Your task to perform on an android device: Open network settings Image 0: 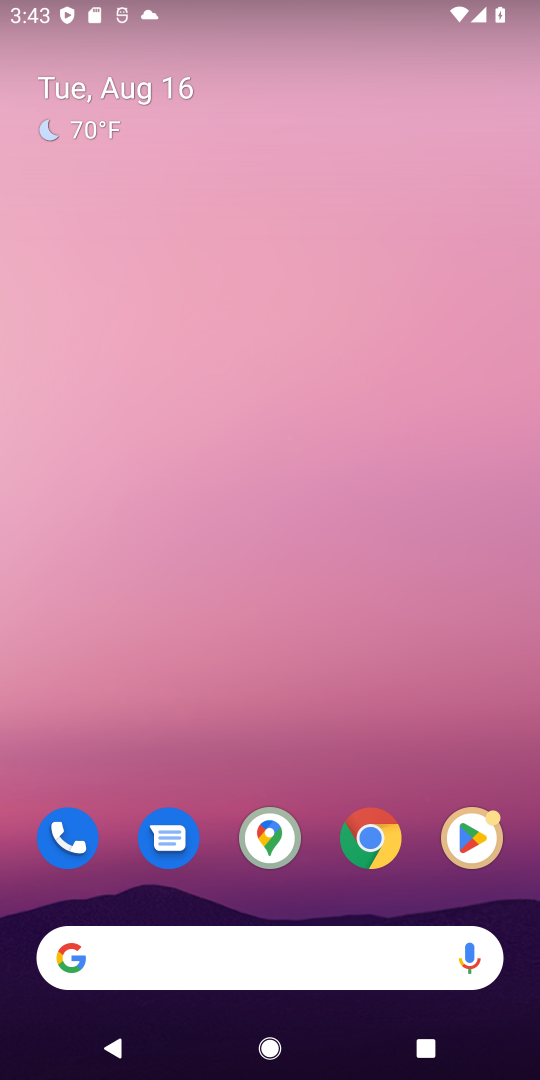
Step 0: drag from (237, 945) to (119, 31)
Your task to perform on an android device: Open network settings Image 1: 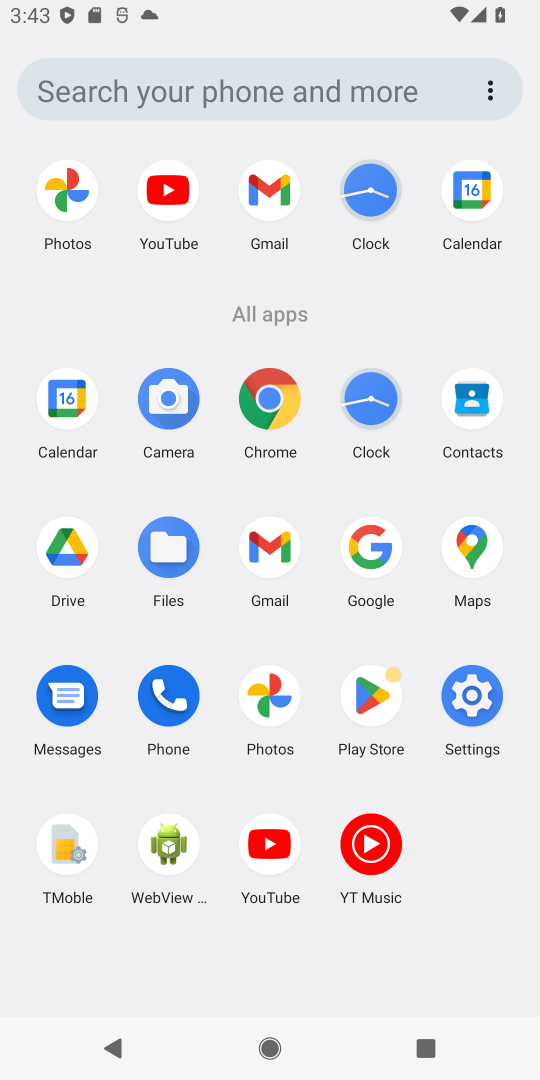
Step 1: click (478, 666)
Your task to perform on an android device: Open network settings Image 2: 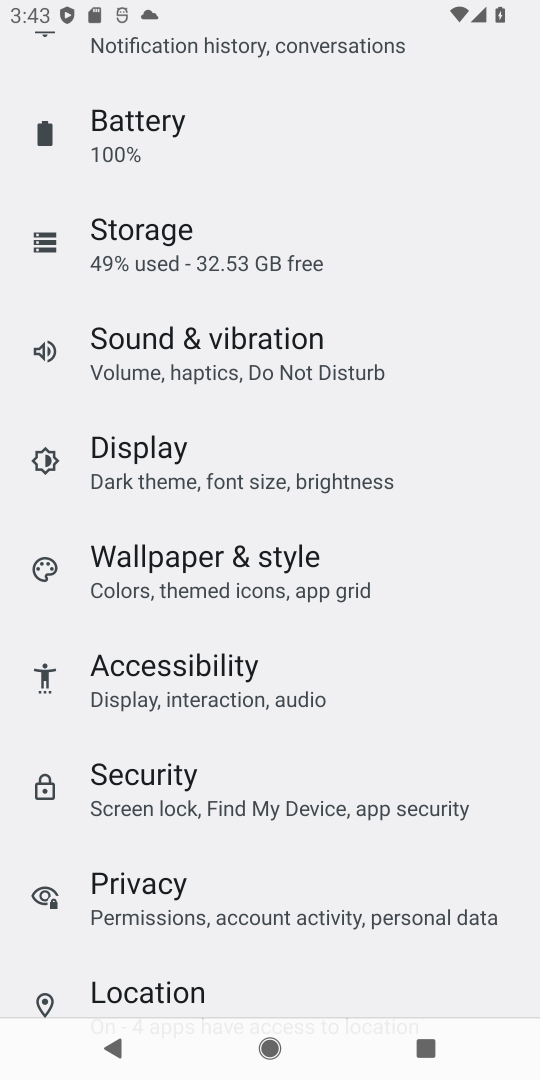
Step 2: drag from (314, 412) to (351, 1074)
Your task to perform on an android device: Open network settings Image 3: 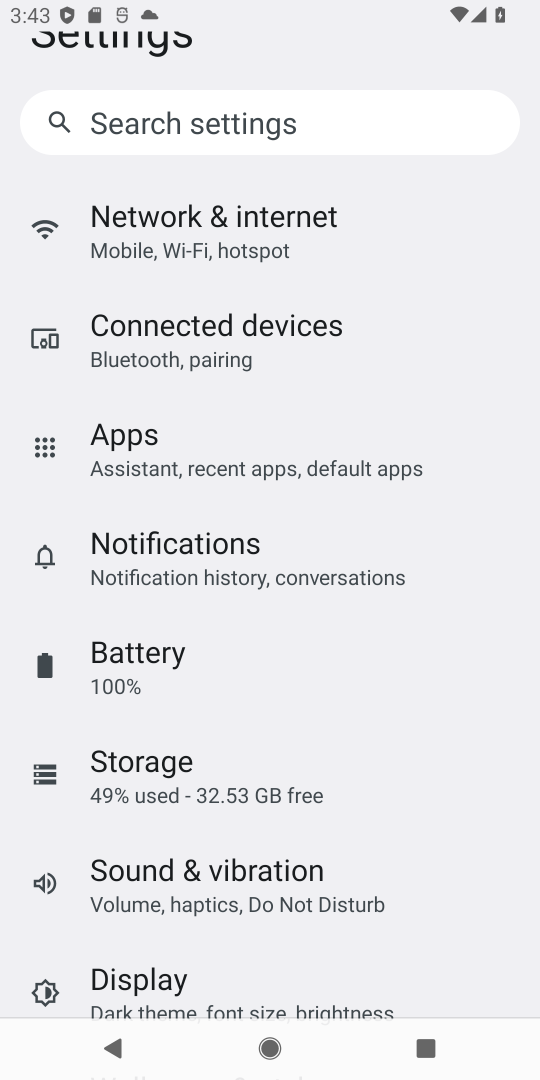
Step 3: click (156, 245)
Your task to perform on an android device: Open network settings Image 4: 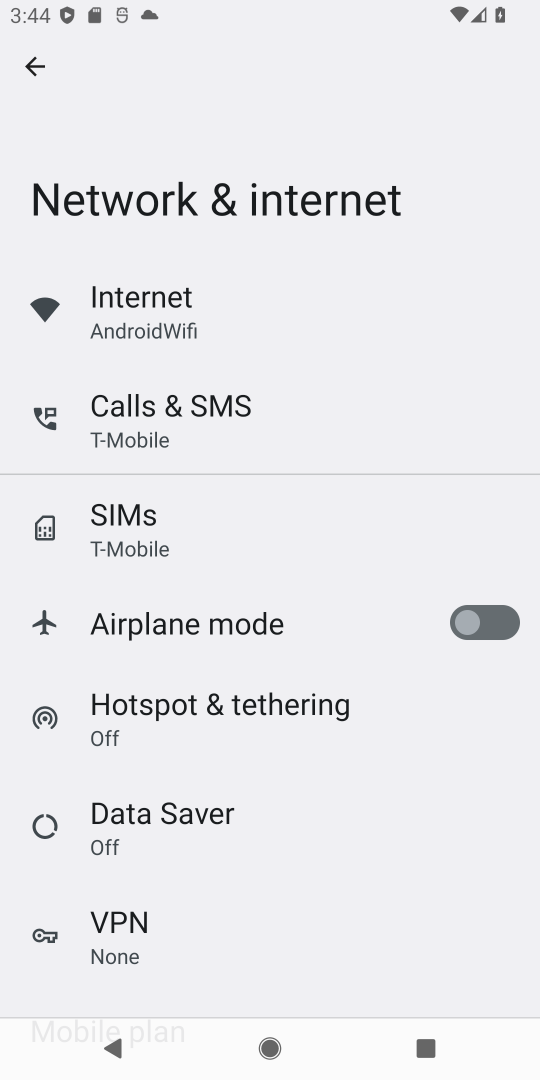
Step 4: task complete